Your task to perform on an android device: Search for vegetarian restaurants on Maps Image 0: 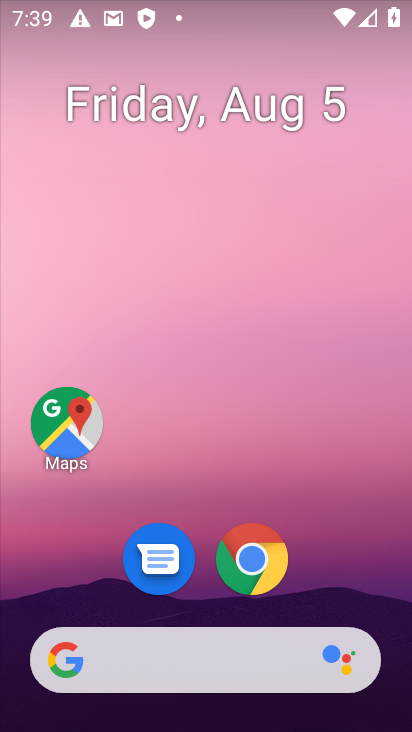
Step 0: click (59, 429)
Your task to perform on an android device: Search for vegetarian restaurants on Maps Image 1: 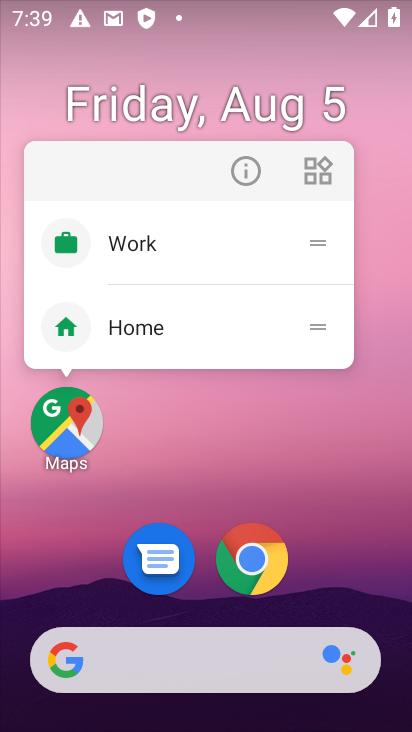
Step 1: click (66, 434)
Your task to perform on an android device: Search for vegetarian restaurants on Maps Image 2: 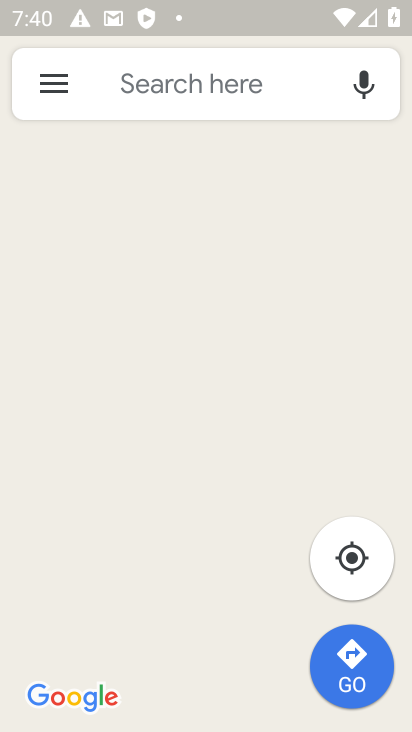
Step 2: click (167, 88)
Your task to perform on an android device: Search for vegetarian restaurants on Maps Image 3: 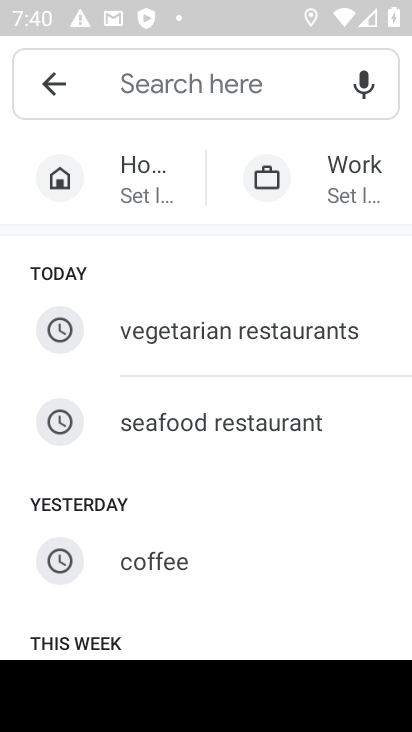
Step 3: type "vegetarian restaurants"
Your task to perform on an android device: Search for vegetarian restaurants on Maps Image 4: 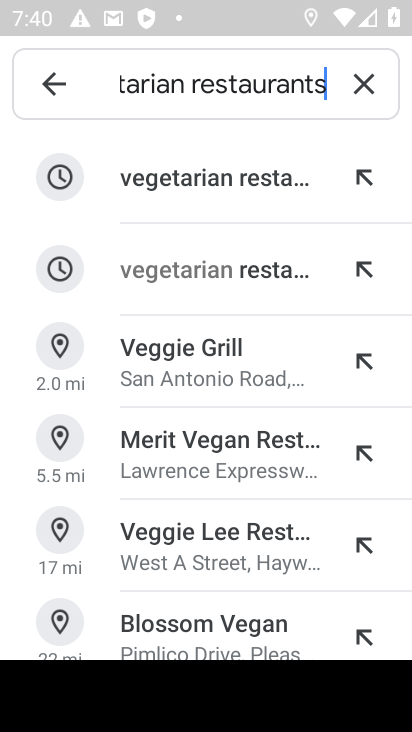
Step 4: click (145, 189)
Your task to perform on an android device: Search for vegetarian restaurants on Maps Image 5: 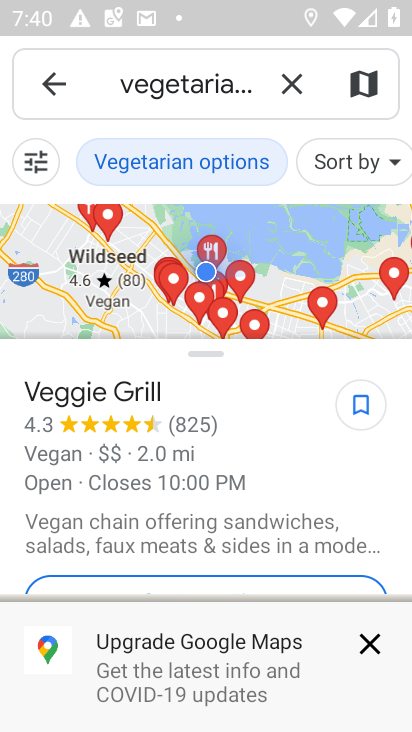
Step 5: task complete